Your task to perform on an android device: change the clock display to analog Image 0: 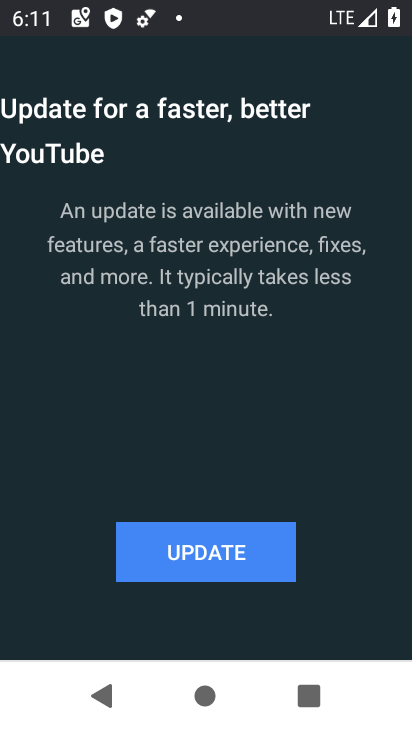
Step 0: press home button
Your task to perform on an android device: change the clock display to analog Image 1: 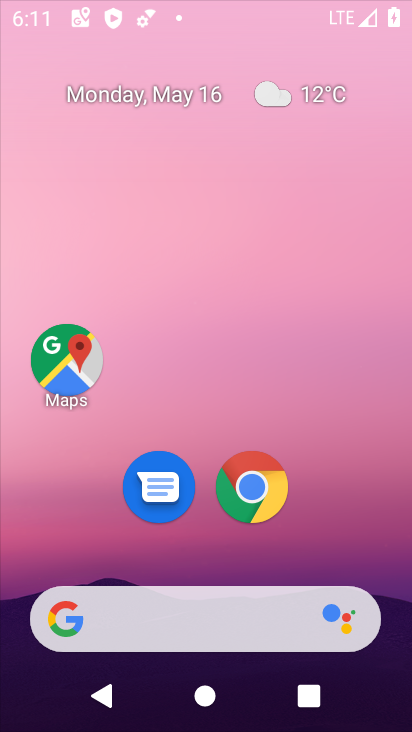
Step 1: drag from (289, 197) to (278, 122)
Your task to perform on an android device: change the clock display to analog Image 2: 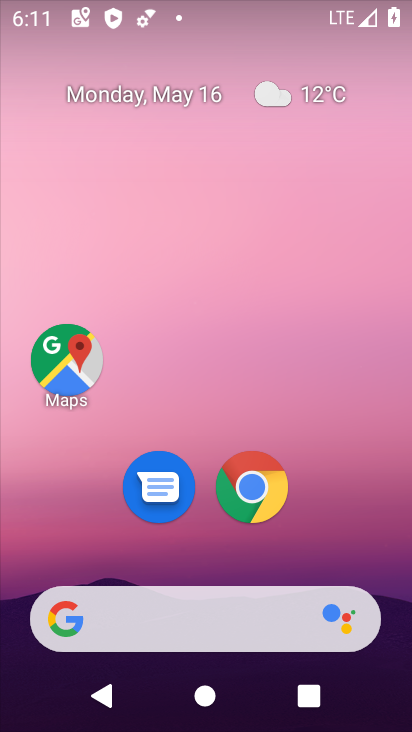
Step 2: drag from (317, 503) to (306, 90)
Your task to perform on an android device: change the clock display to analog Image 3: 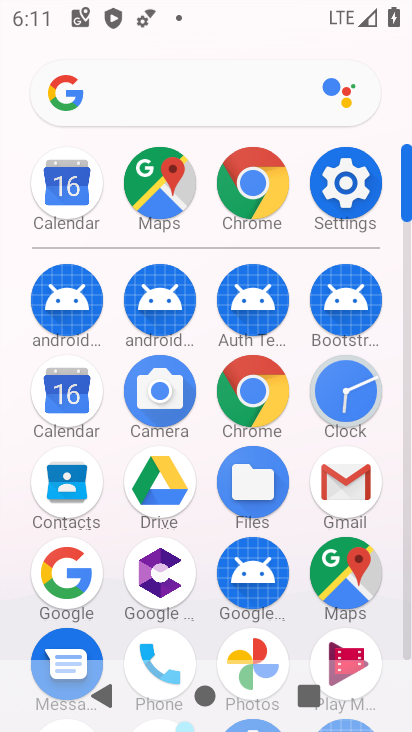
Step 3: click (337, 394)
Your task to perform on an android device: change the clock display to analog Image 4: 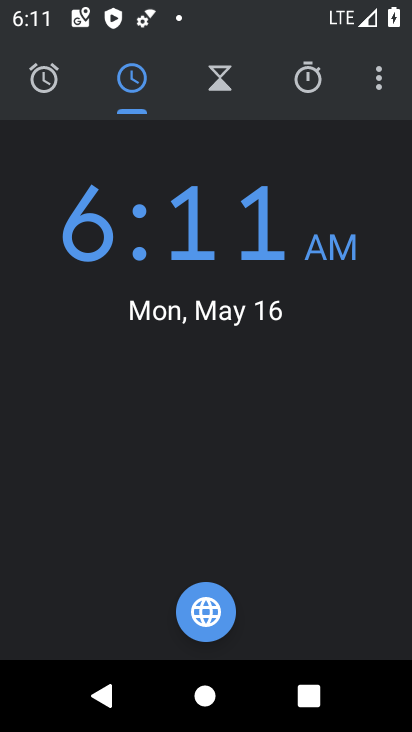
Step 4: drag from (377, 78) to (258, 147)
Your task to perform on an android device: change the clock display to analog Image 5: 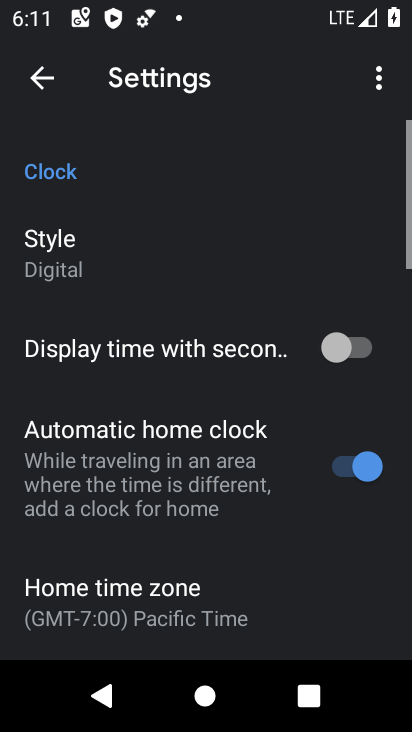
Step 5: click (62, 257)
Your task to perform on an android device: change the clock display to analog Image 6: 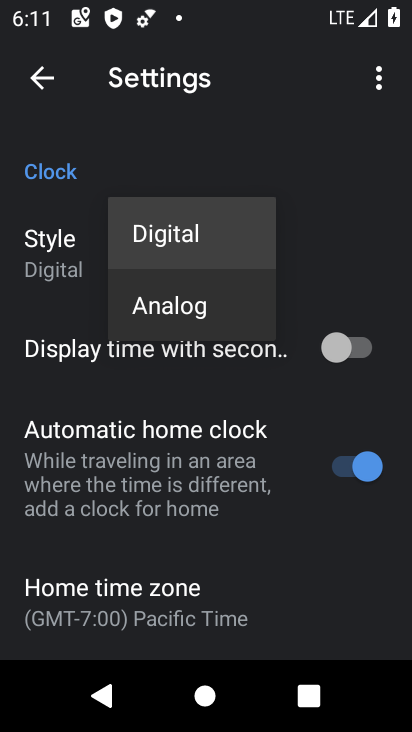
Step 6: click (160, 296)
Your task to perform on an android device: change the clock display to analog Image 7: 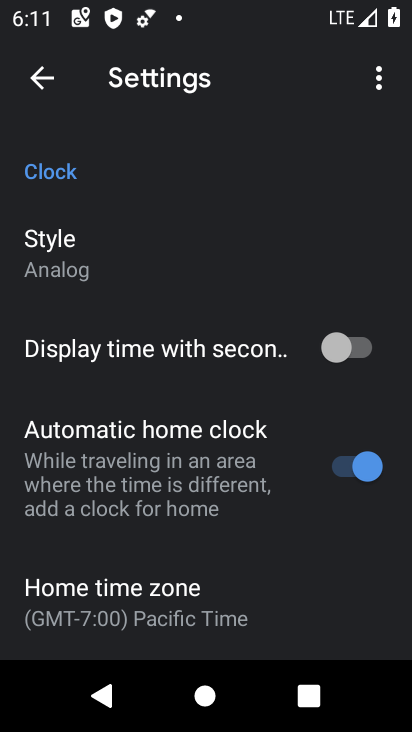
Step 7: task complete